Your task to perform on an android device: Open location settings Image 0: 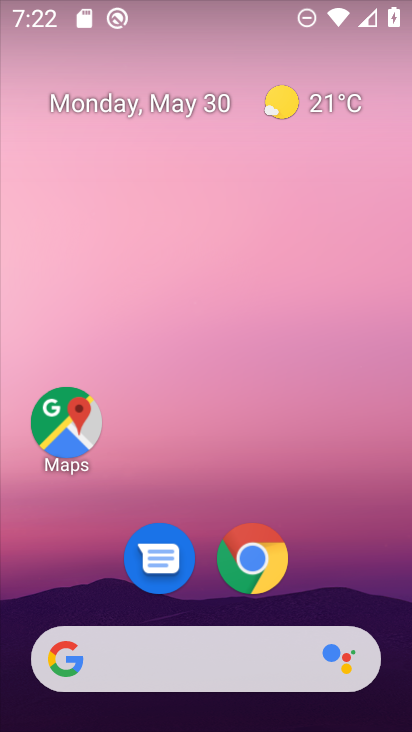
Step 0: drag from (344, 554) to (282, 211)
Your task to perform on an android device: Open location settings Image 1: 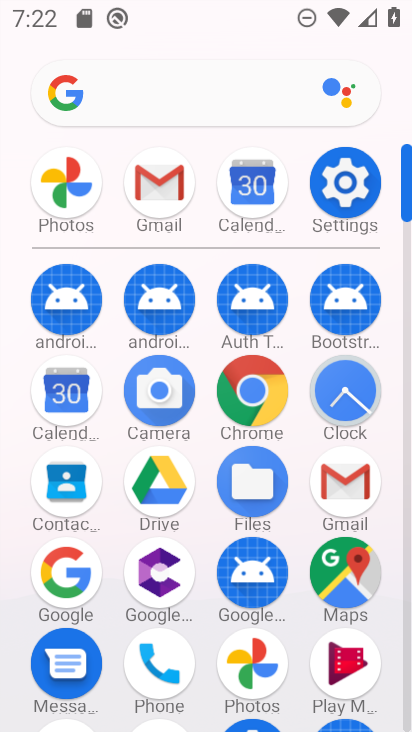
Step 1: click (347, 183)
Your task to perform on an android device: Open location settings Image 2: 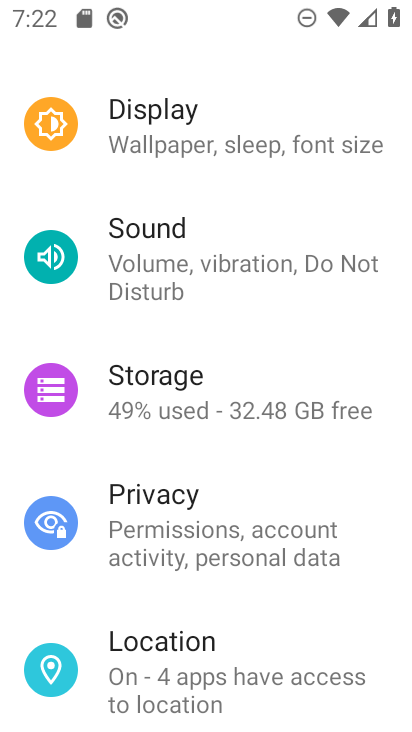
Step 2: click (161, 657)
Your task to perform on an android device: Open location settings Image 3: 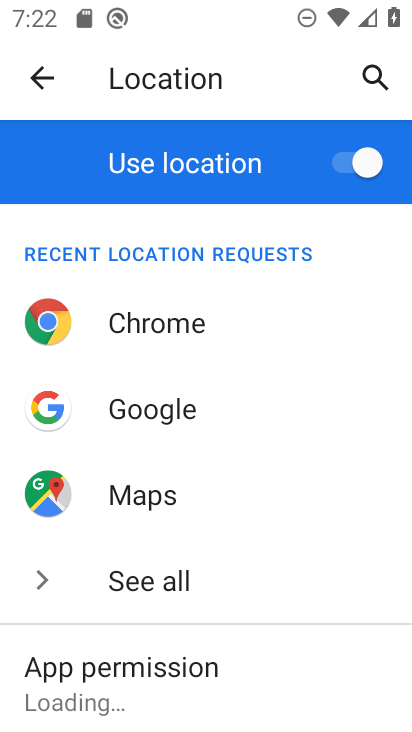
Step 3: task complete